Your task to perform on an android device: Add logitech g502 to the cart on walmart Image 0: 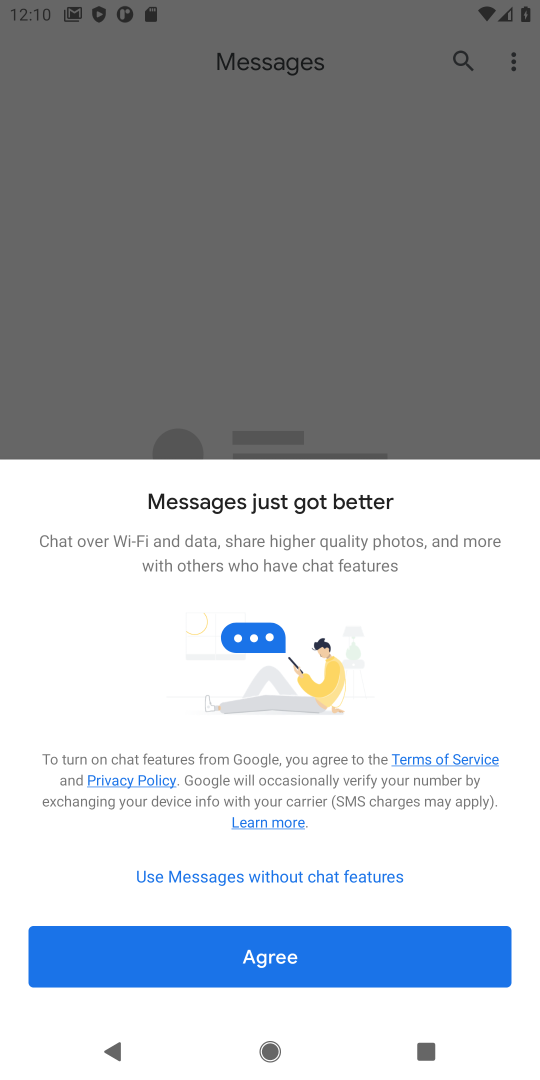
Step 0: press home button
Your task to perform on an android device: Add logitech g502 to the cart on walmart Image 1: 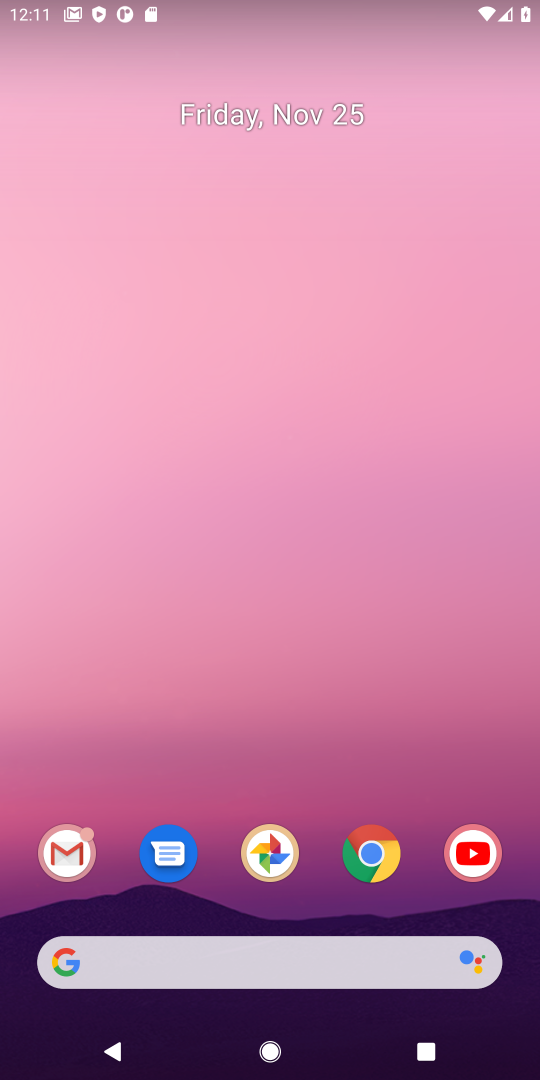
Step 1: click (373, 957)
Your task to perform on an android device: Add logitech g502 to the cart on walmart Image 2: 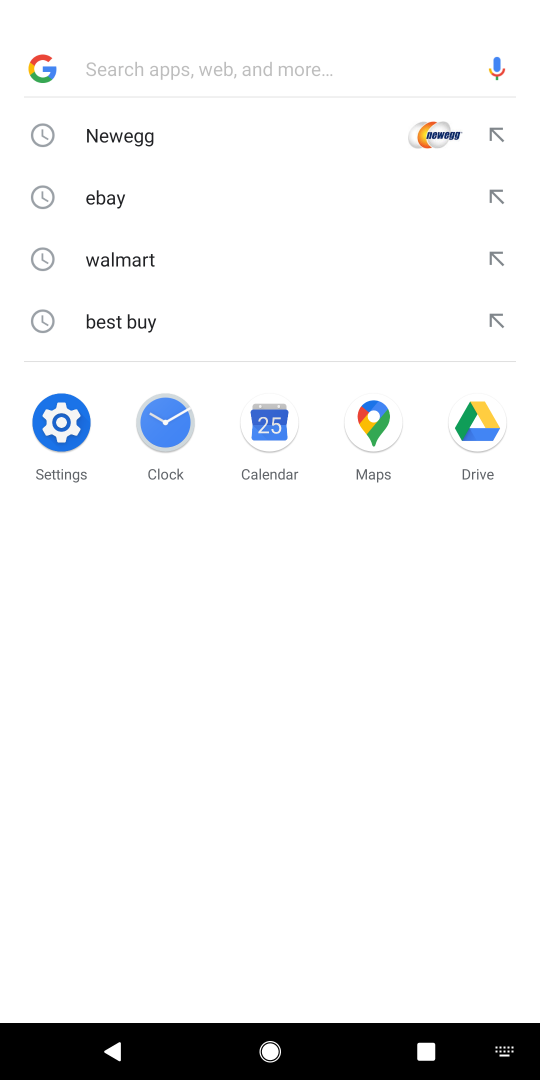
Step 2: drag from (495, 868) to (540, 819)
Your task to perform on an android device: Add logitech g502 to the cart on walmart Image 3: 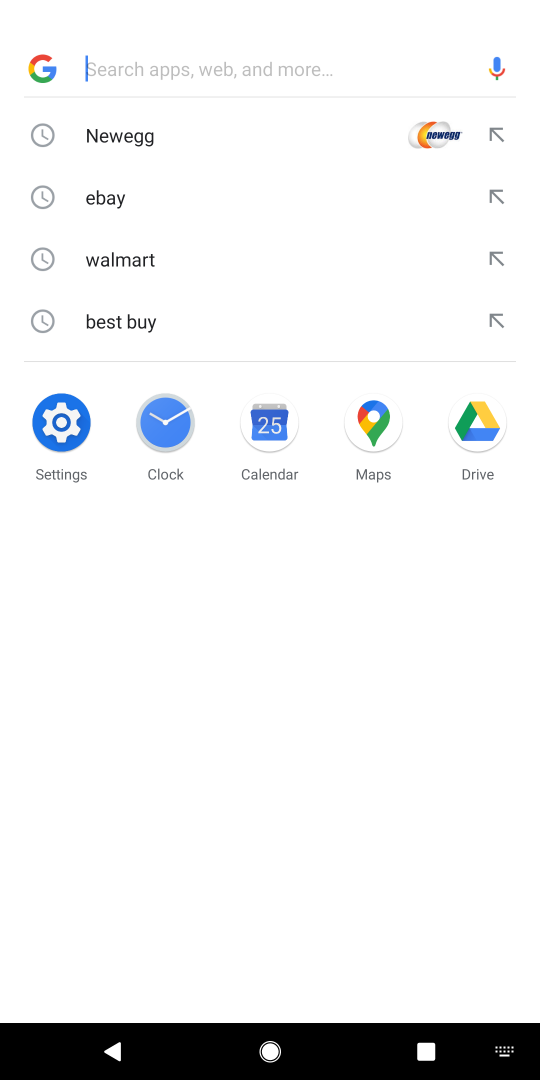
Step 3: type "walmart"
Your task to perform on an android device: Add logitech g502 to the cart on walmart Image 4: 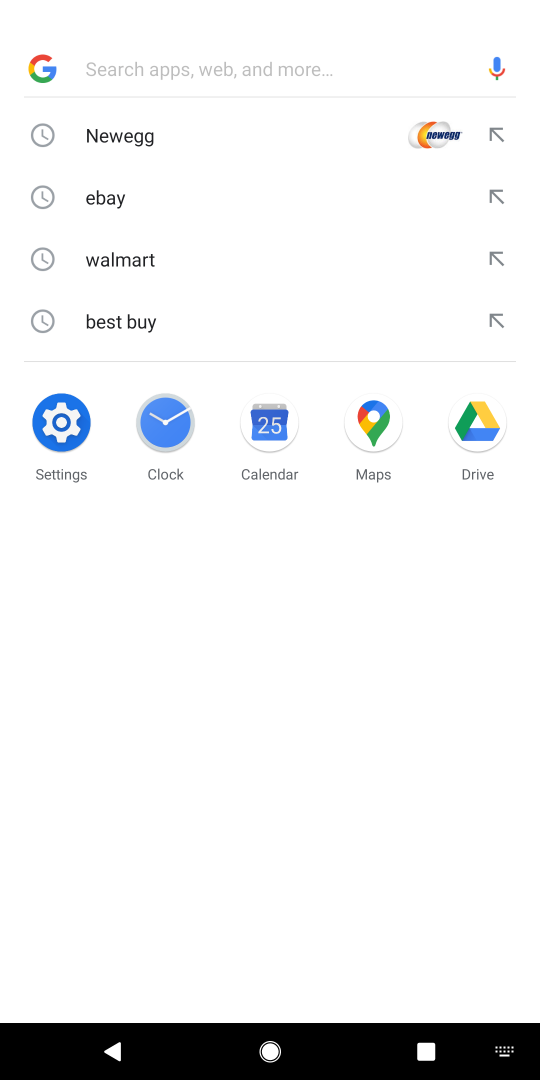
Step 4: drag from (540, 819) to (526, 427)
Your task to perform on an android device: Add logitech g502 to the cart on walmart Image 5: 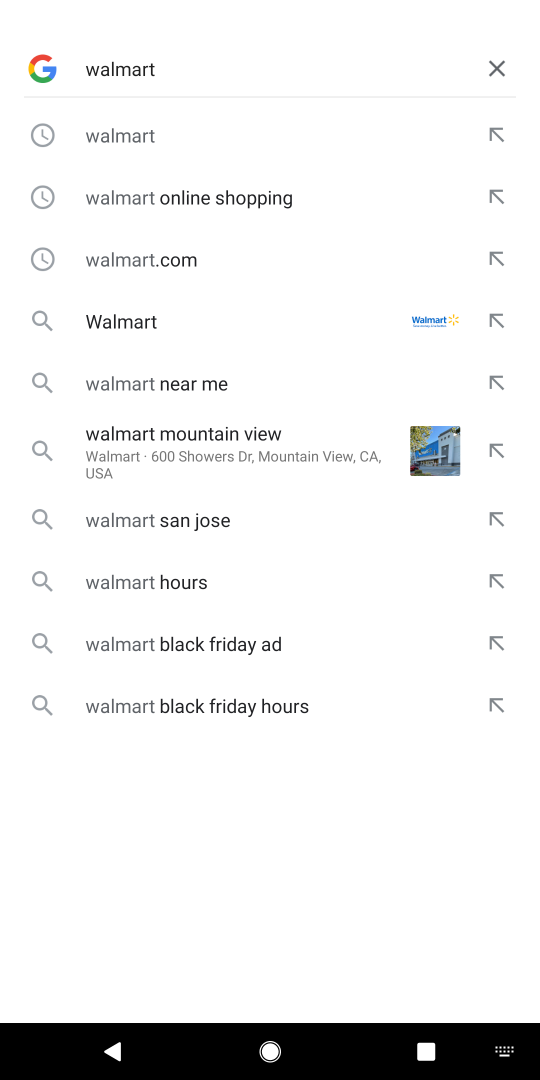
Step 5: click (144, 133)
Your task to perform on an android device: Add logitech g502 to the cart on walmart Image 6: 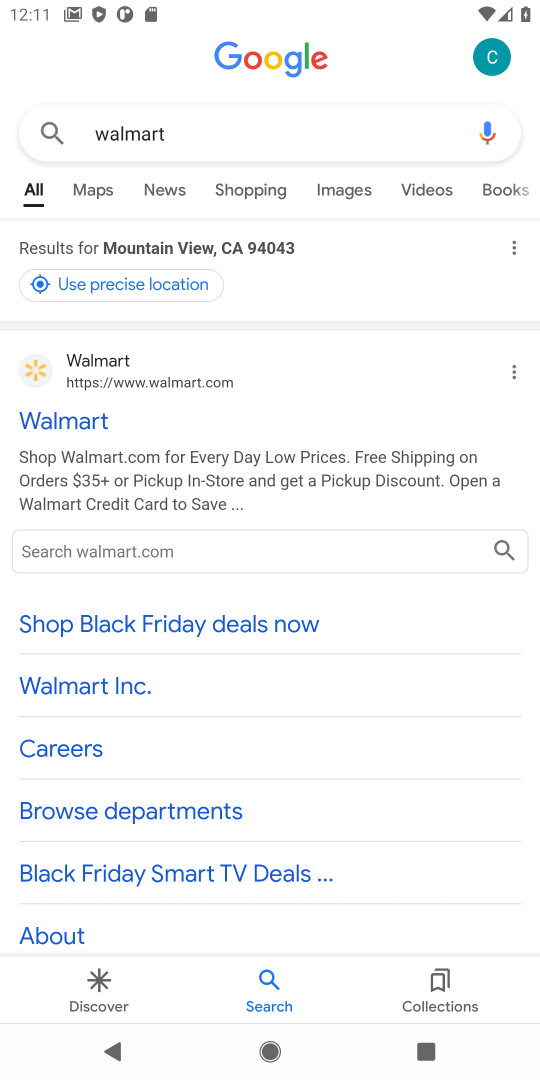
Step 6: click (44, 357)
Your task to perform on an android device: Add logitech g502 to the cart on walmart Image 7: 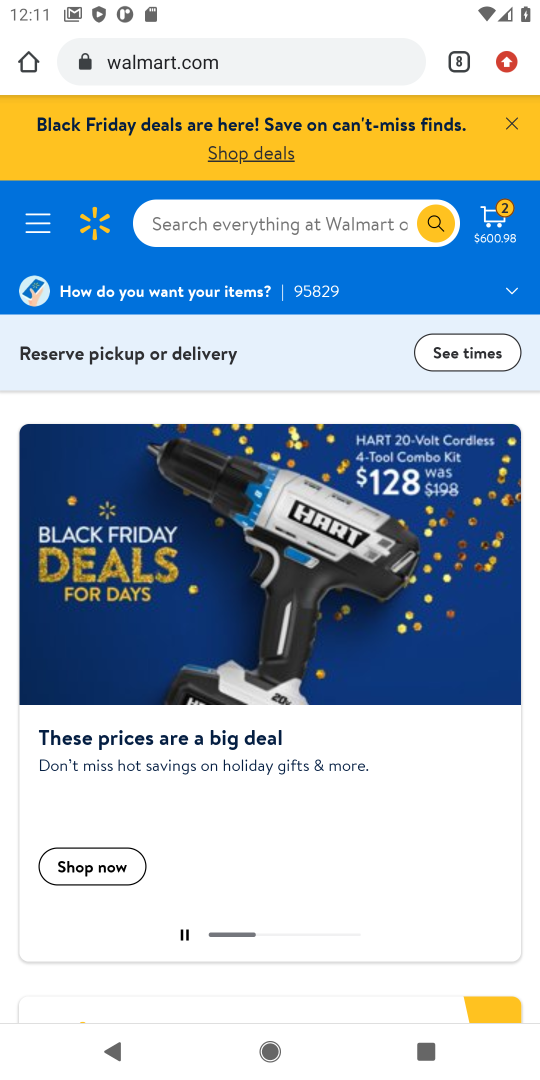
Step 7: click (213, 227)
Your task to perform on an android device: Add logitech g502 to the cart on walmart Image 8: 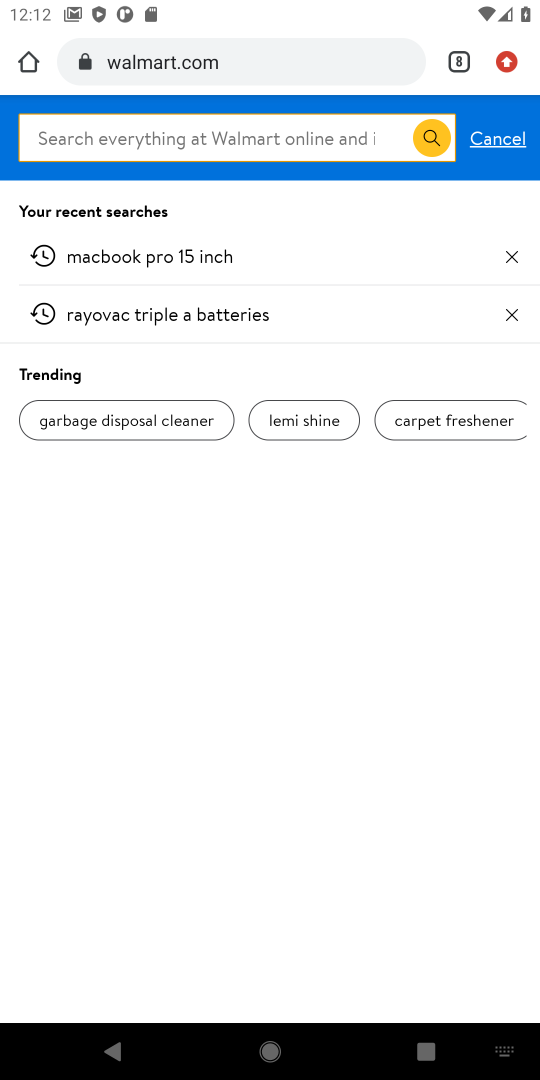
Step 8: type "logitech g502"
Your task to perform on an android device: Add logitech g502 to the cart on walmart Image 9: 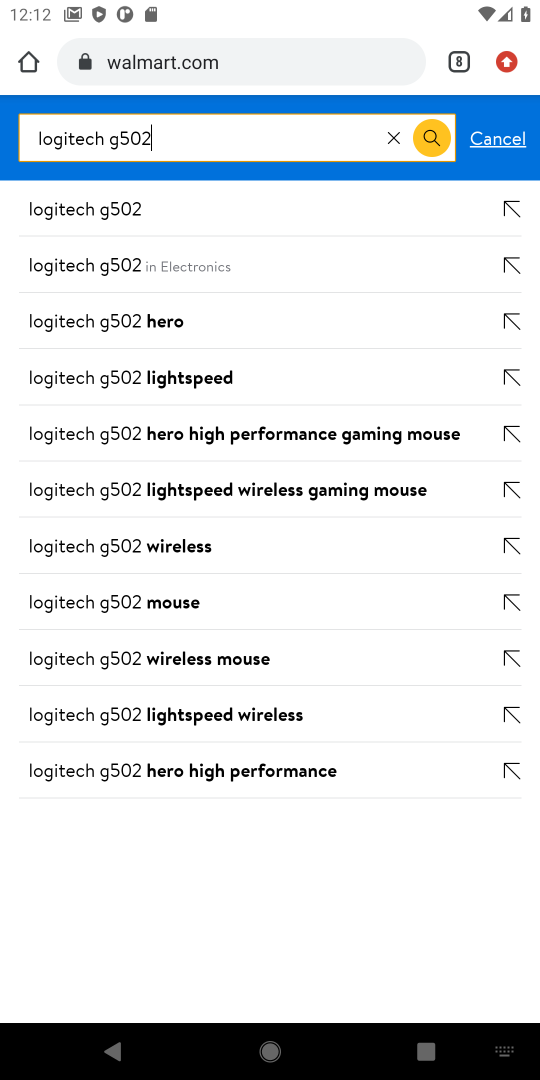
Step 9: click (229, 228)
Your task to perform on an android device: Add logitech g502 to the cart on walmart Image 10: 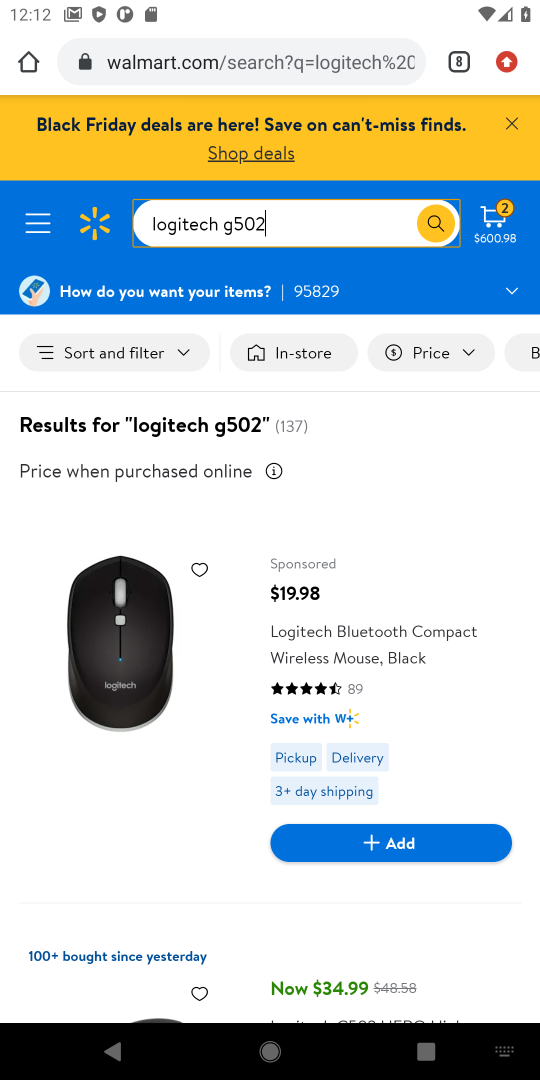
Step 10: click (350, 857)
Your task to perform on an android device: Add logitech g502 to the cart on walmart Image 11: 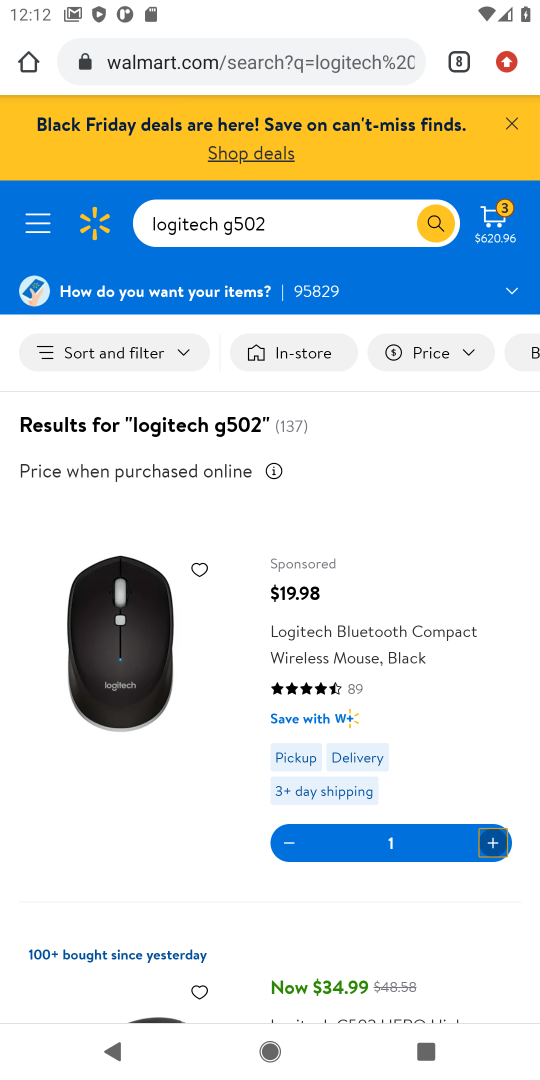
Step 11: task complete